Your task to perform on an android device: Is it going to rain tomorrow? Image 0: 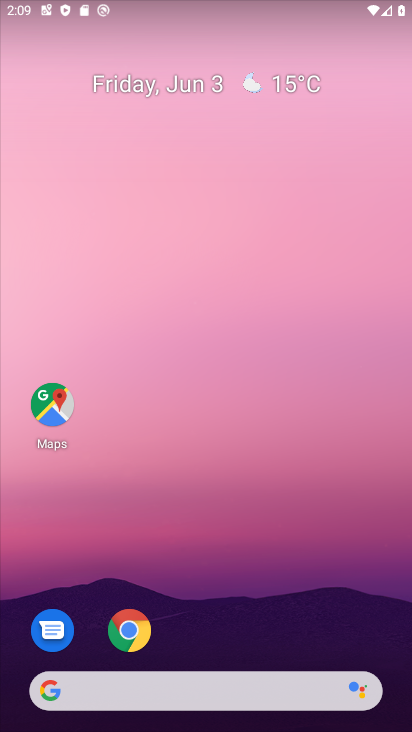
Step 0: drag from (216, 259) to (197, 65)
Your task to perform on an android device: Is it going to rain tomorrow? Image 1: 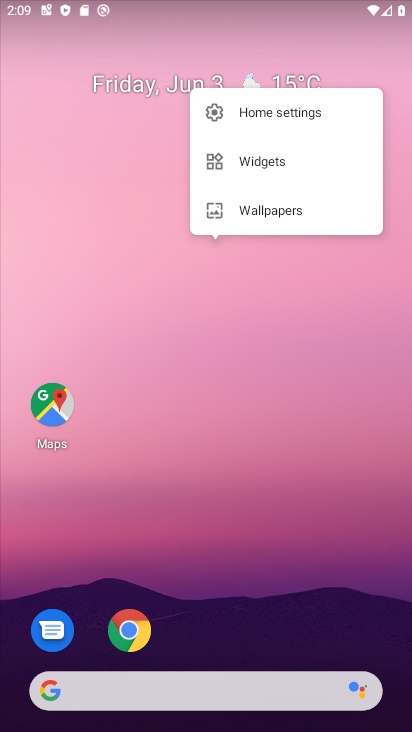
Step 1: click (291, 511)
Your task to perform on an android device: Is it going to rain tomorrow? Image 2: 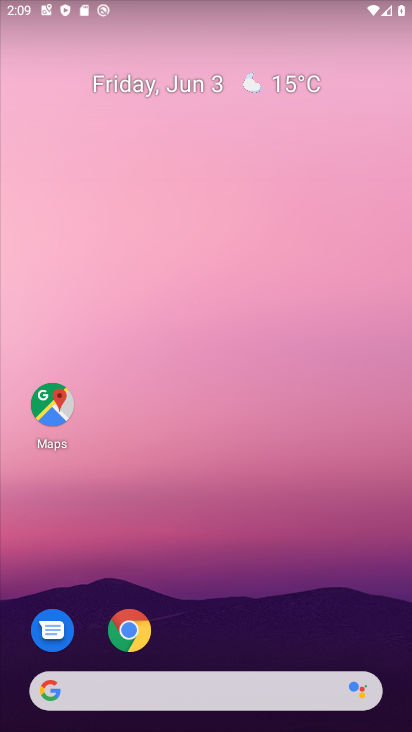
Step 2: drag from (330, 557) to (204, 0)
Your task to perform on an android device: Is it going to rain tomorrow? Image 3: 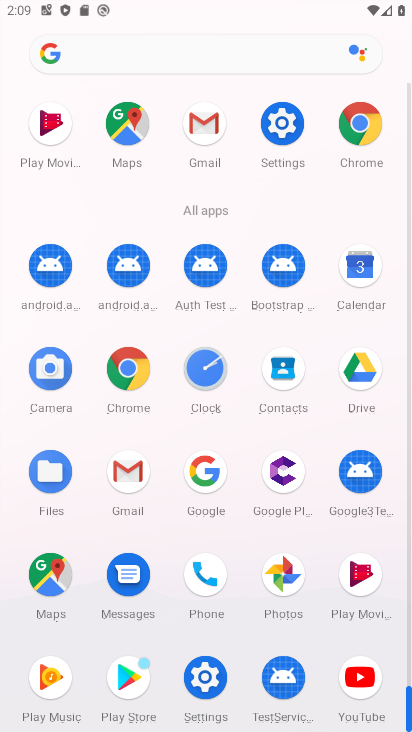
Step 3: drag from (18, 571) to (0, 248)
Your task to perform on an android device: Is it going to rain tomorrow? Image 4: 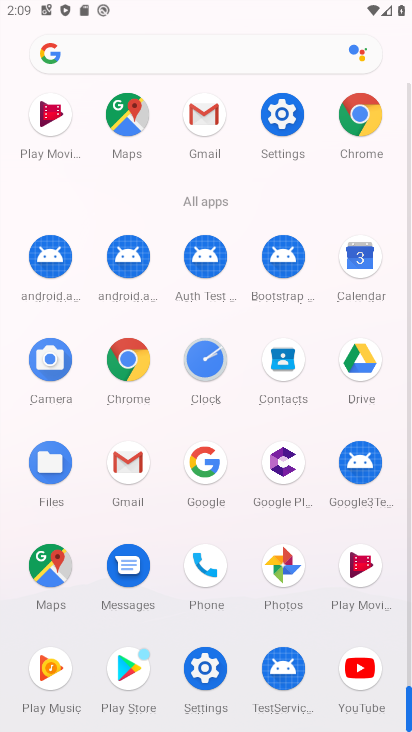
Step 4: click (124, 358)
Your task to perform on an android device: Is it going to rain tomorrow? Image 5: 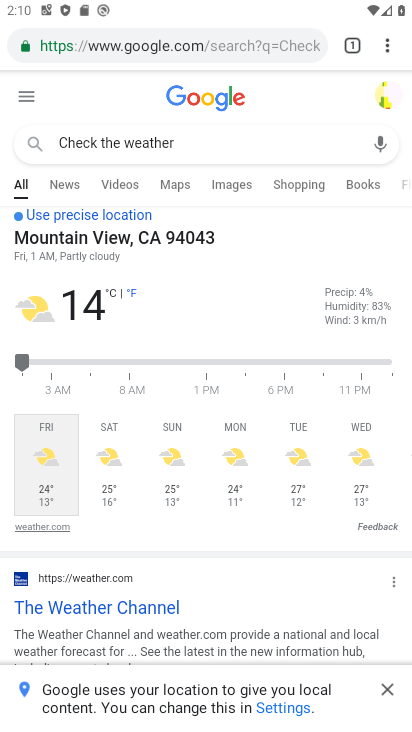
Step 5: click (247, 45)
Your task to perform on an android device: Is it going to rain tomorrow? Image 6: 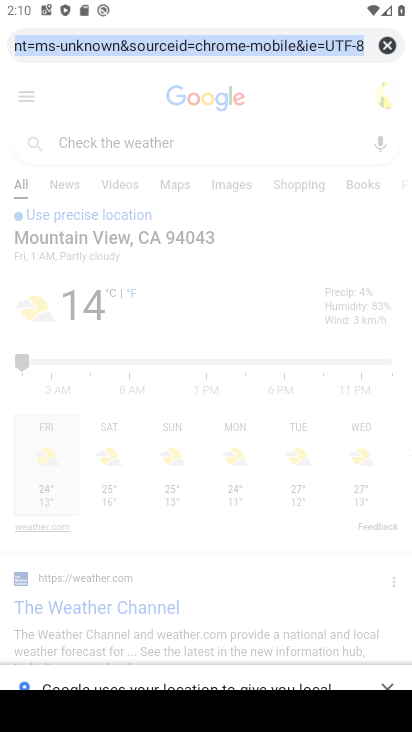
Step 6: click (386, 44)
Your task to perform on an android device: Is it going to rain tomorrow? Image 7: 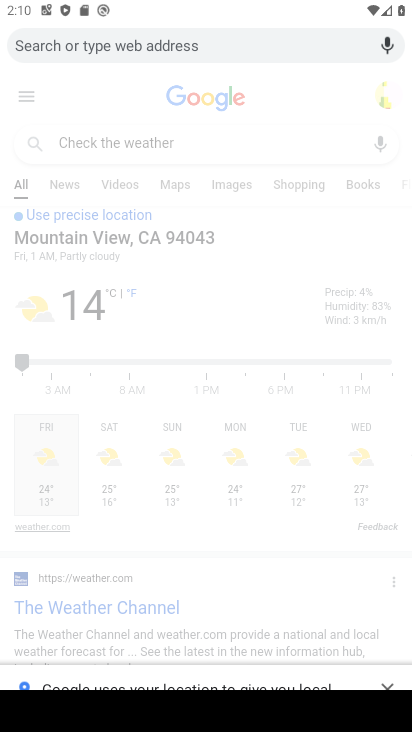
Step 7: type "Is it going to rain tomorrow?"
Your task to perform on an android device: Is it going to rain tomorrow? Image 8: 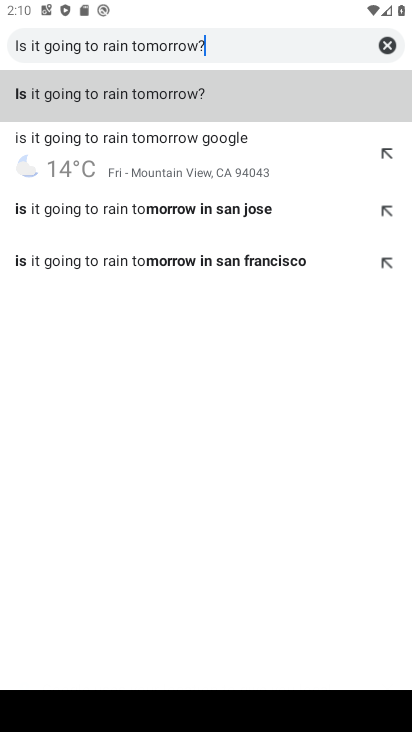
Step 8: click (87, 48)
Your task to perform on an android device: Is it going to rain tomorrow? Image 9: 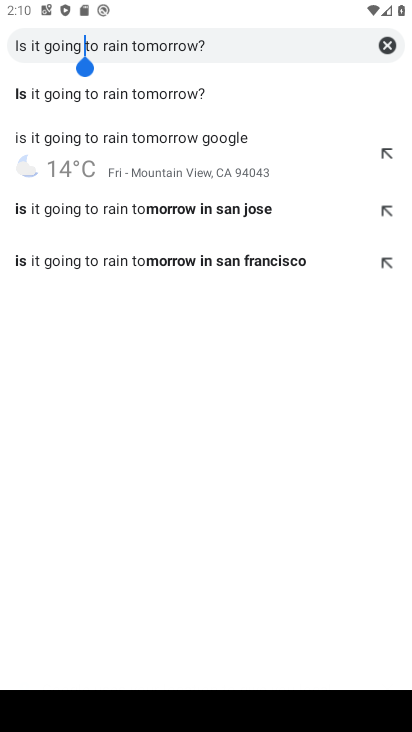
Step 9: click (101, 155)
Your task to perform on an android device: Is it going to rain tomorrow? Image 10: 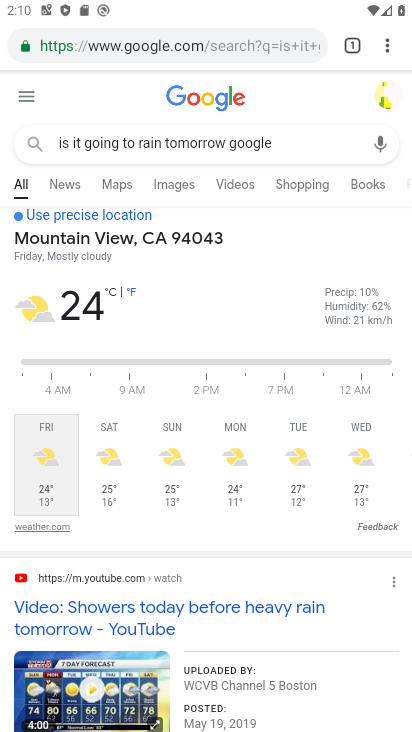
Step 10: task complete